Your task to perform on an android device: Open location settings Image 0: 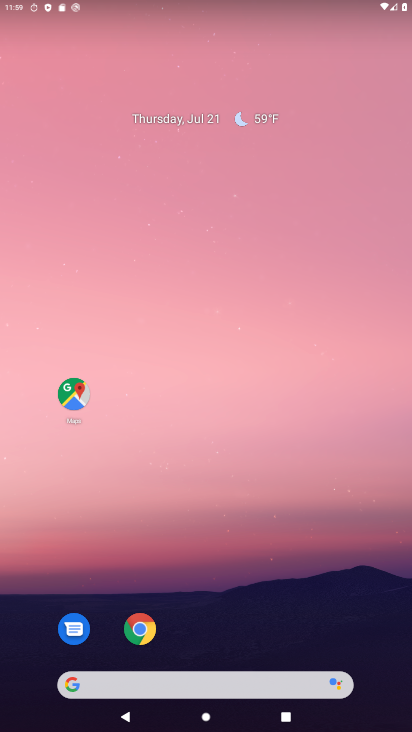
Step 0: drag from (125, 680) to (124, 17)
Your task to perform on an android device: Open location settings Image 1: 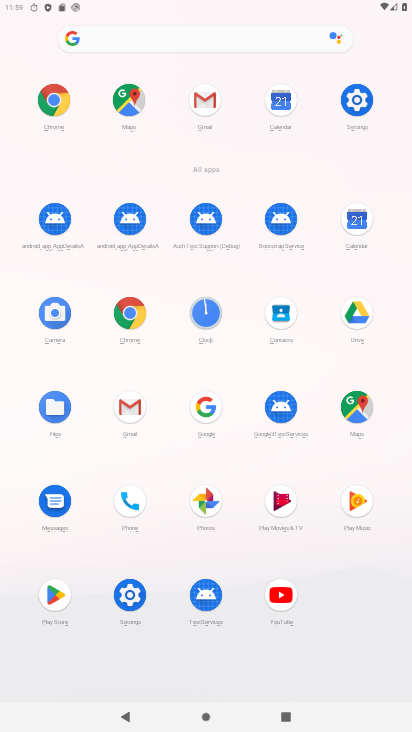
Step 1: click (365, 91)
Your task to perform on an android device: Open location settings Image 2: 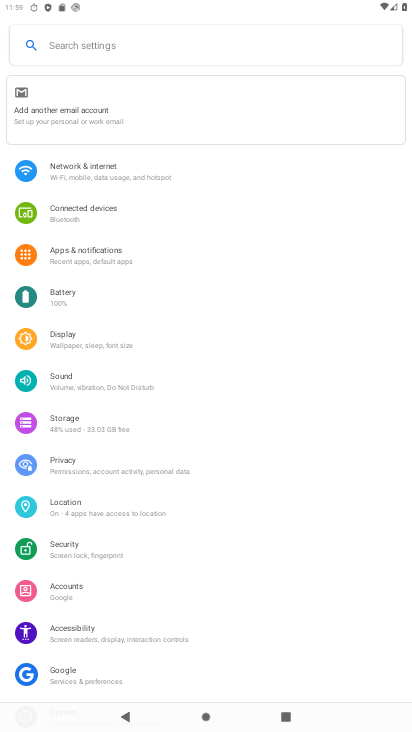
Step 2: click (83, 500)
Your task to perform on an android device: Open location settings Image 3: 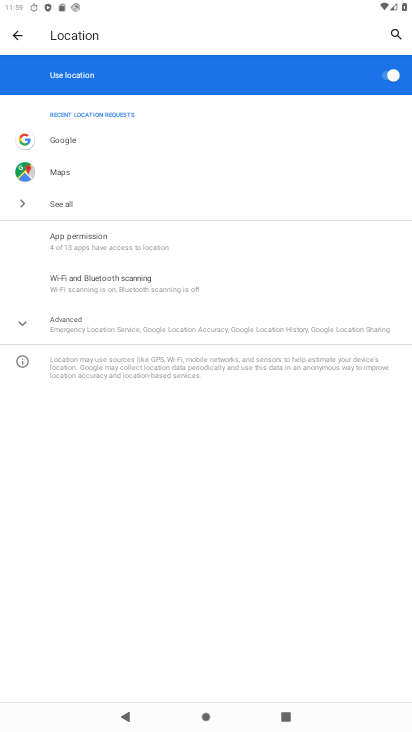
Step 3: task complete